Your task to perform on an android device: Open Chrome and go to settings Image 0: 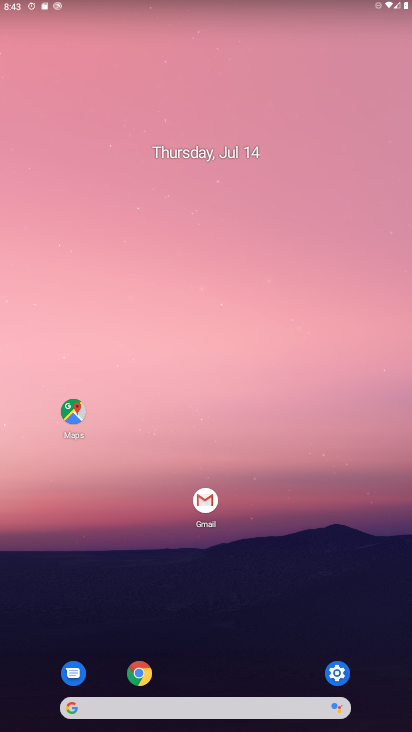
Step 0: click (140, 672)
Your task to perform on an android device: Open Chrome and go to settings Image 1: 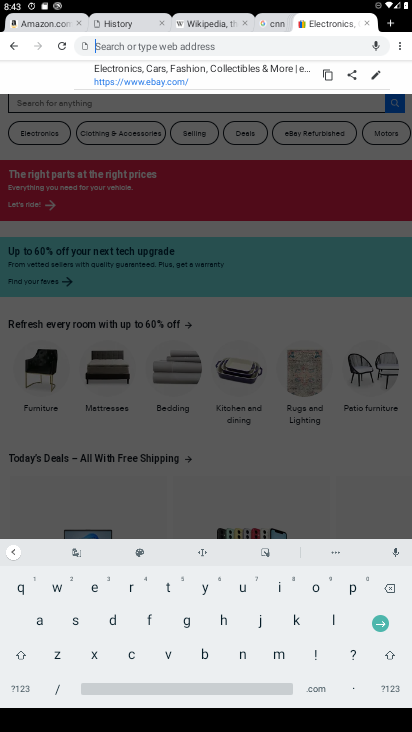
Step 1: click (399, 51)
Your task to perform on an android device: Open Chrome and go to settings Image 2: 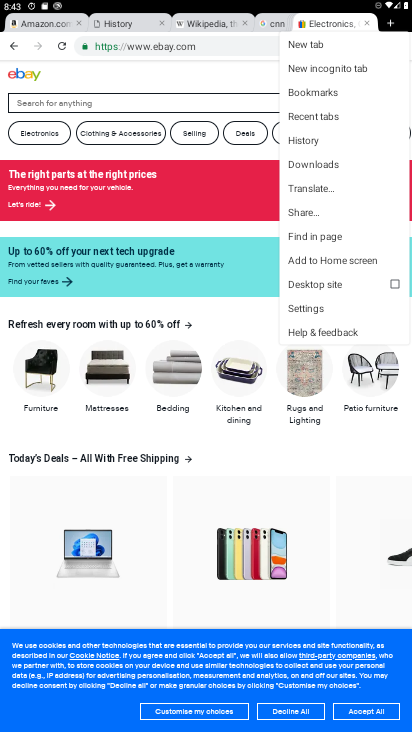
Step 2: click (308, 304)
Your task to perform on an android device: Open Chrome and go to settings Image 3: 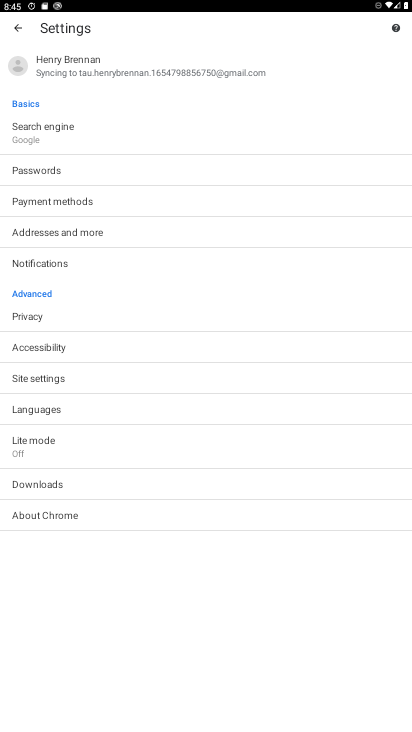
Step 3: task complete